Your task to perform on an android device: Turn on the flashlight Image 0: 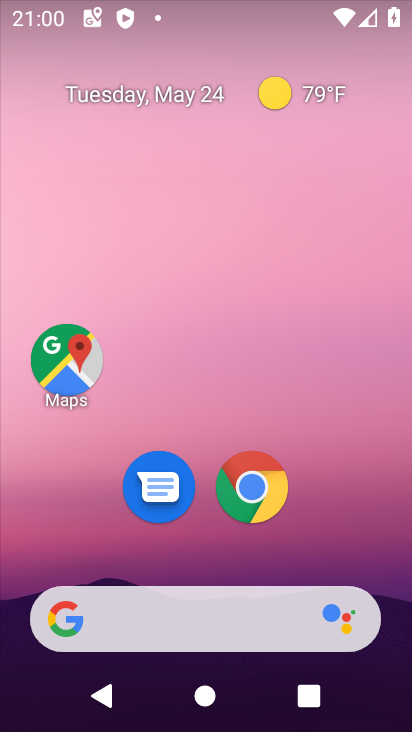
Step 0: press home button
Your task to perform on an android device: Turn on the flashlight Image 1: 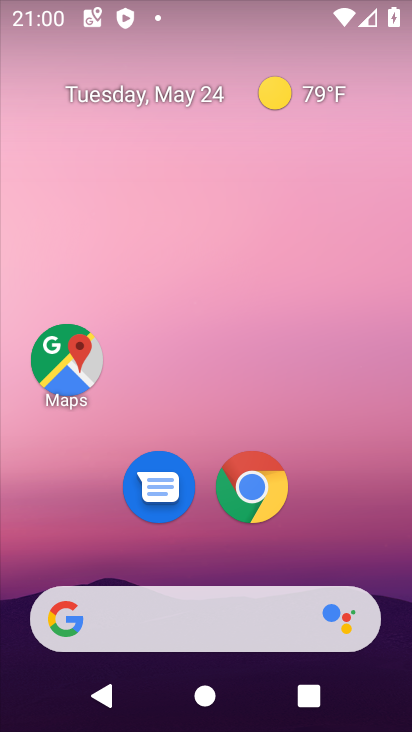
Step 1: task complete